Your task to perform on an android device: make emails show in primary in the gmail app Image 0: 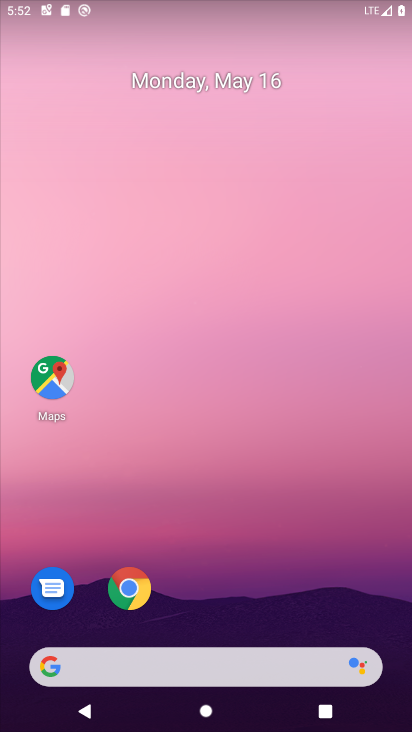
Step 0: drag from (297, 570) to (246, 142)
Your task to perform on an android device: make emails show in primary in the gmail app Image 1: 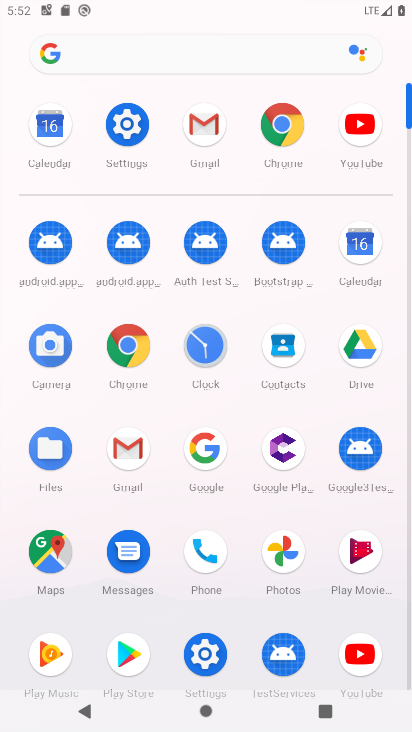
Step 1: click (119, 453)
Your task to perform on an android device: make emails show in primary in the gmail app Image 2: 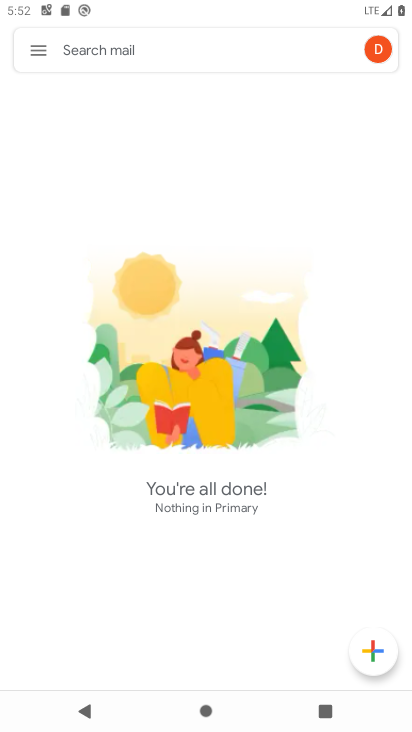
Step 2: click (29, 48)
Your task to perform on an android device: make emails show in primary in the gmail app Image 3: 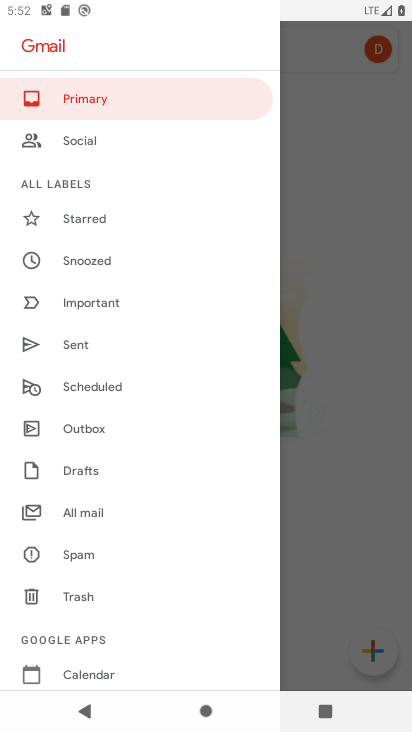
Step 3: drag from (166, 183) to (167, 524)
Your task to perform on an android device: make emails show in primary in the gmail app Image 4: 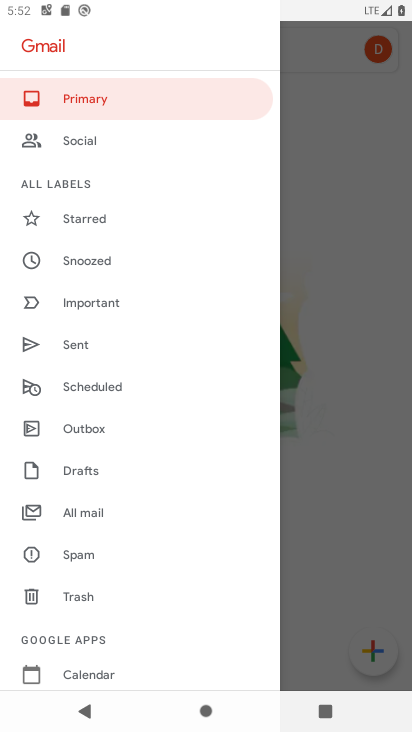
Step 4: click (168, 99)
Your task to perform on an android device: make emails show in primary in the gmail app Image 5: 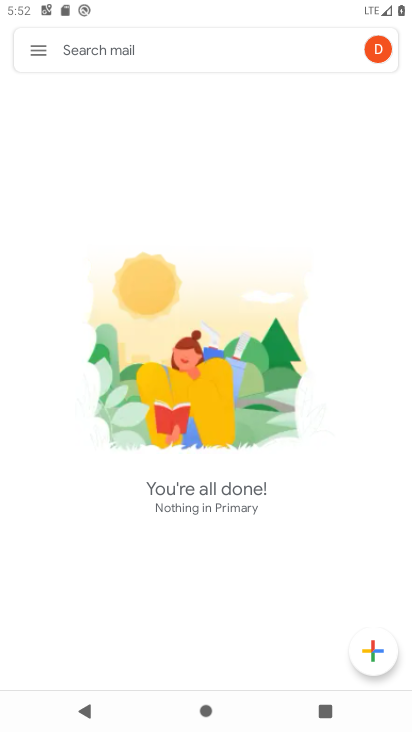
Step 5: task complete